Your task to perform on an android device: visit the assistant section in the google photos Image 0: 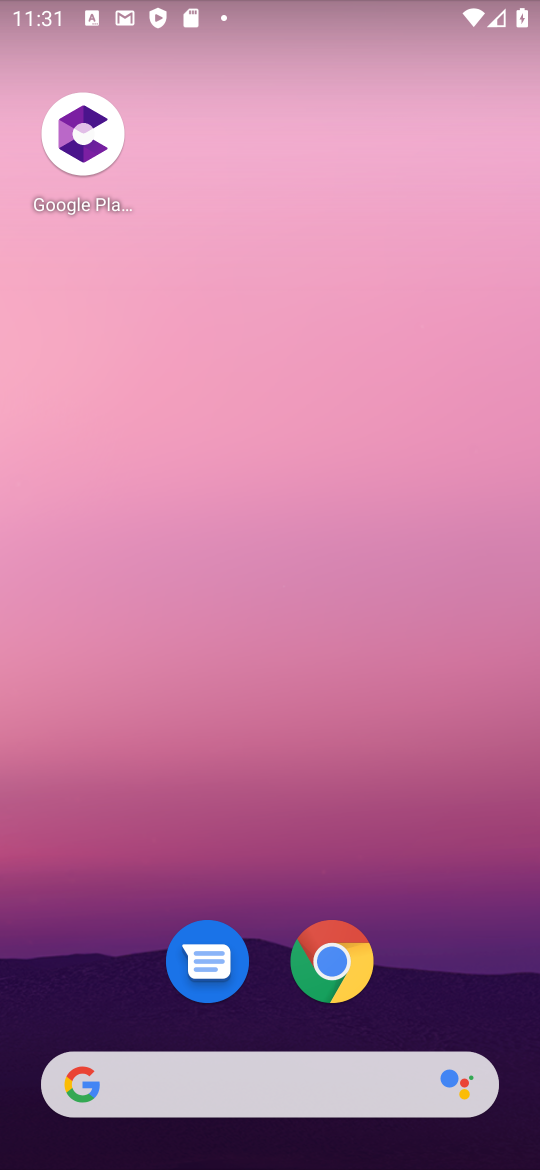
Step 0: drag from (429, 922) to (427, 79)
Your task to perform on an android device: visit the assistant section in the google photos Image 1: 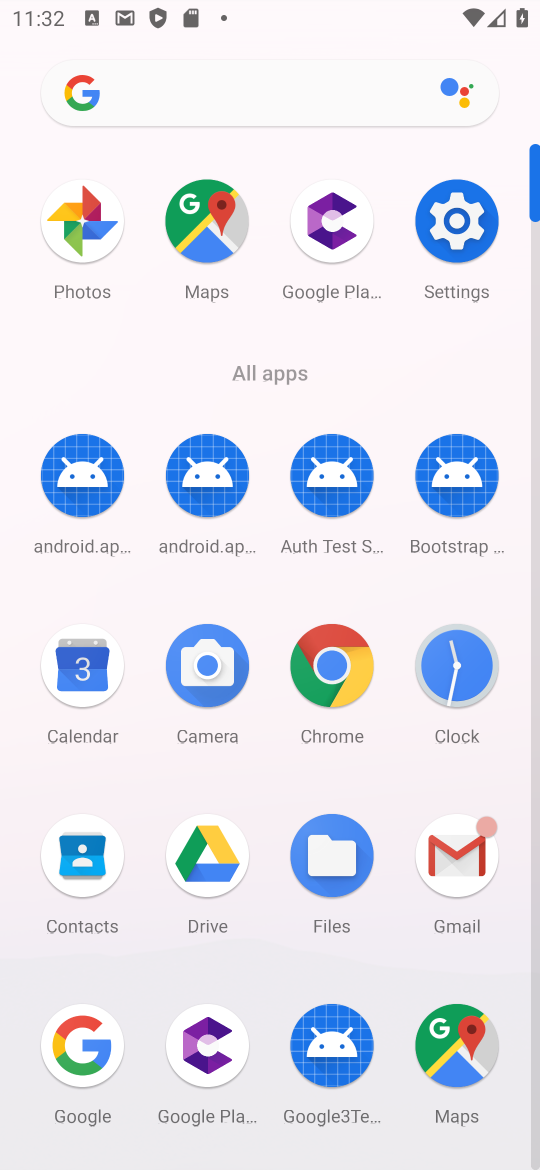
Step 1: click (97, 223)
Your task to perform on an android device: visit the assistant section in the google photos Image 2: 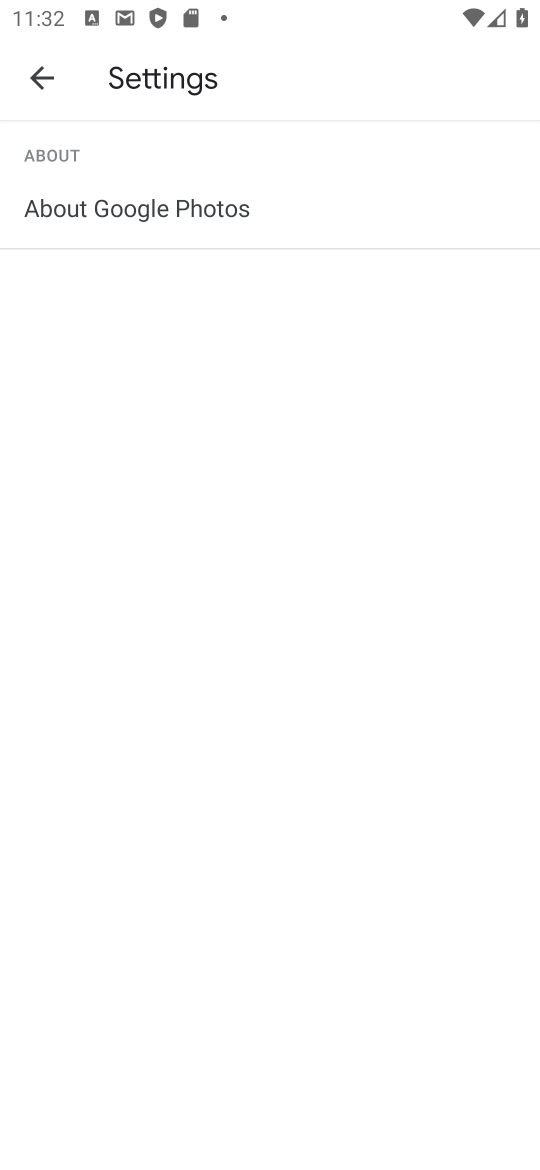
Step 2: click (49, 76)
Your task to perform on an android device: visit the assistant section in the google photos Image 3: 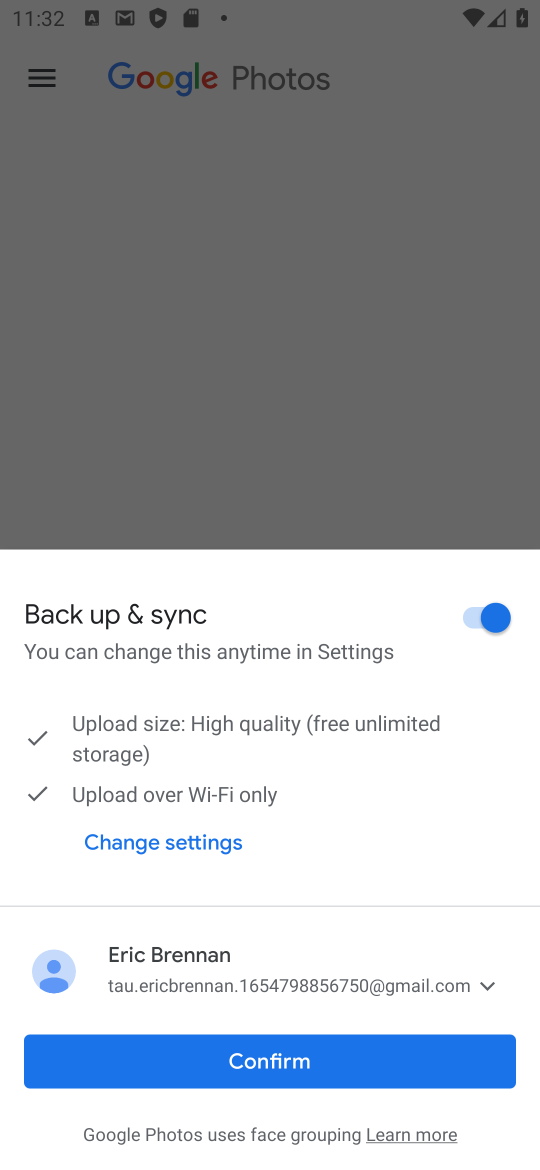
Step 3: click (414, 1062)
Your task to perform on an android device: visit the assistant section in the google photos Image 4: 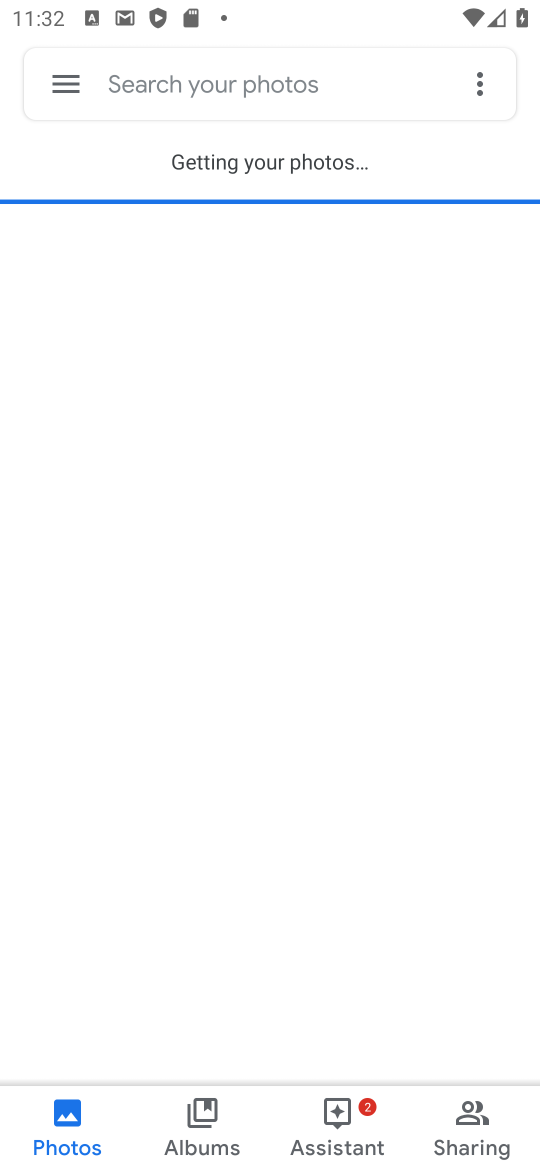
Step 4: click (352, 1134)
Your task to perform on an android device: visit the assistant section in the google photos Image 5: 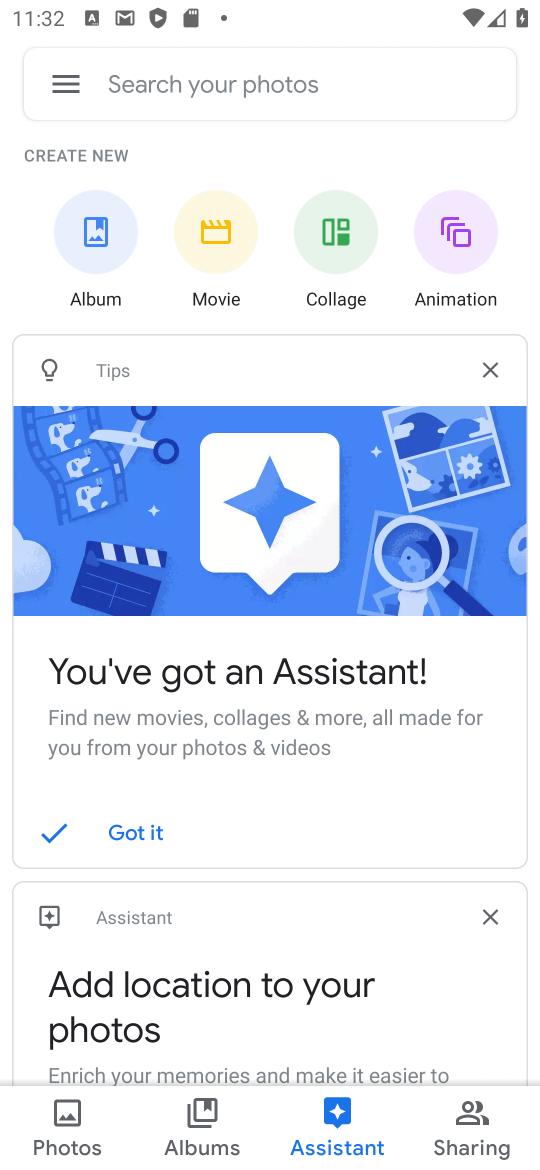
Step 5: task complete